Your task to perform on an android device: show emergency info Image 0: 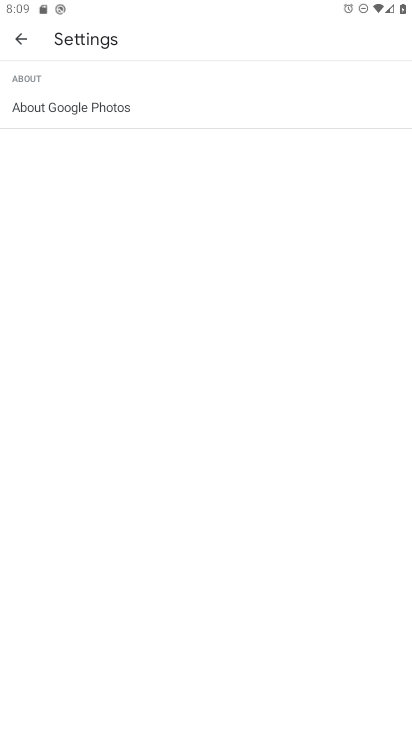
Step 0: press home button
Your task to perform on an android device: show emergency info Image 1: 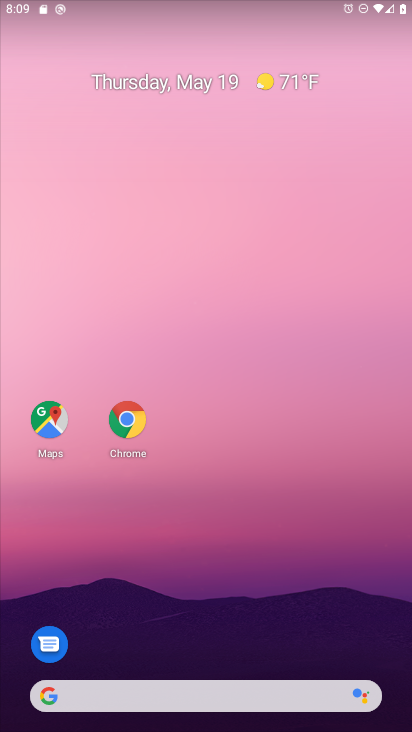
Step 1: drag from (191, 673) to (237, 266)
Your task to perform on an android device: show emergency info Image 2: 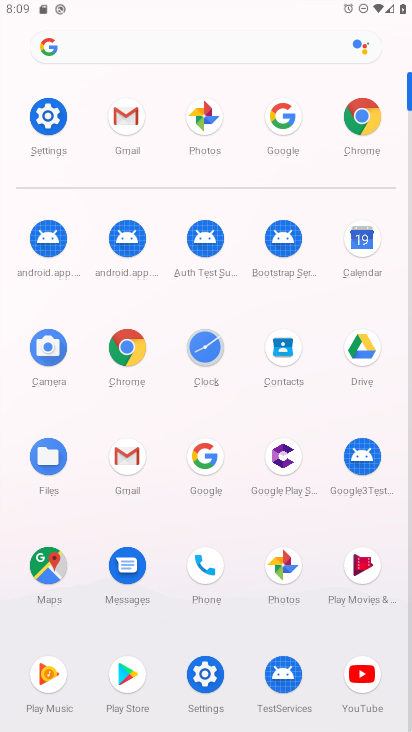
Step 2: click (52, 111)
Your task to perform on an android device: show emergency info Image 3: 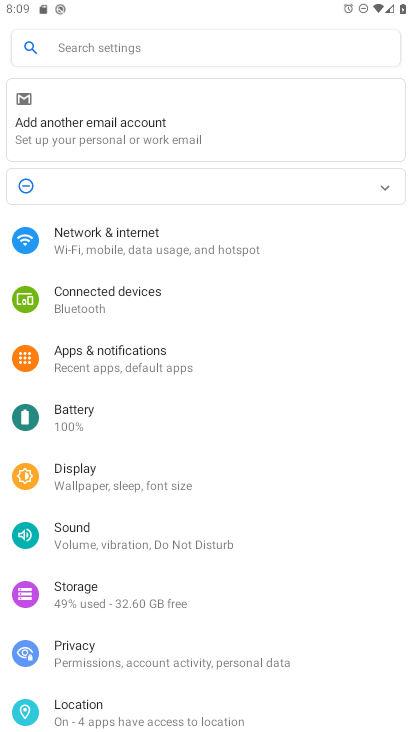
Step 3: drag from (155, 601) to (239, 103)
Your task to perform on an android device: show emergency info Image 4: 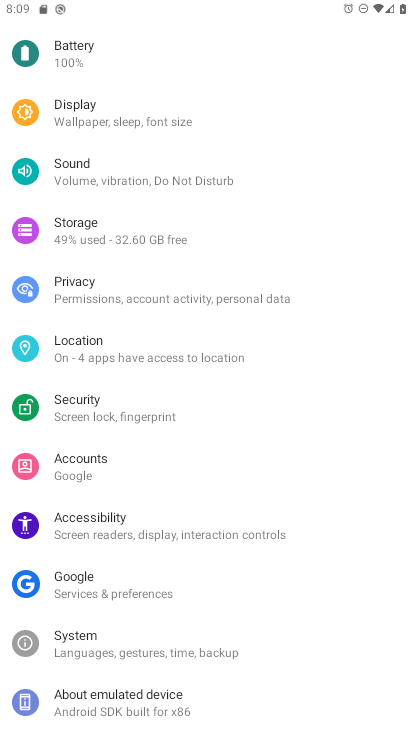
Step 4: click (96, 703)
Your task to perform on an android device: show emergency info Image 5: 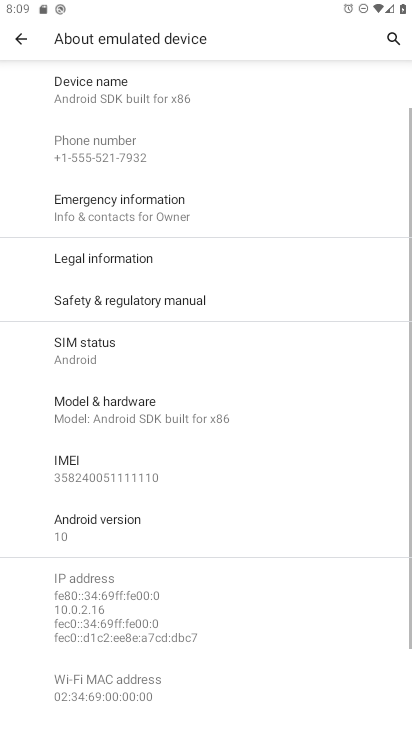
Step 5: drag from (122, 681) to (162, 505)
Your task to perform on an android device: show emergency info Image 6: 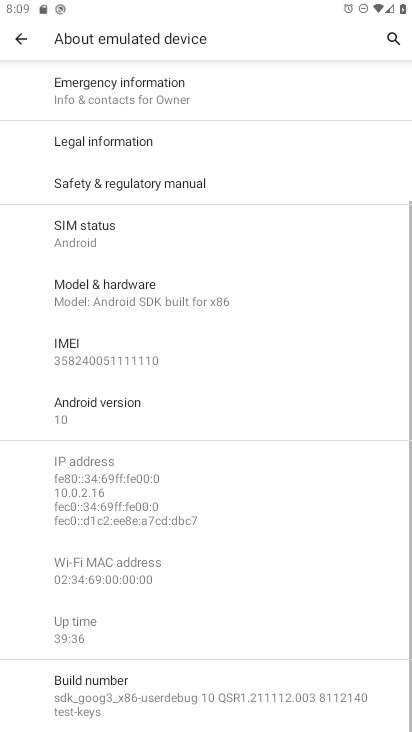
Step 6: click (185, 85)
Your task to perform on an android device: show emergency info Image 7: 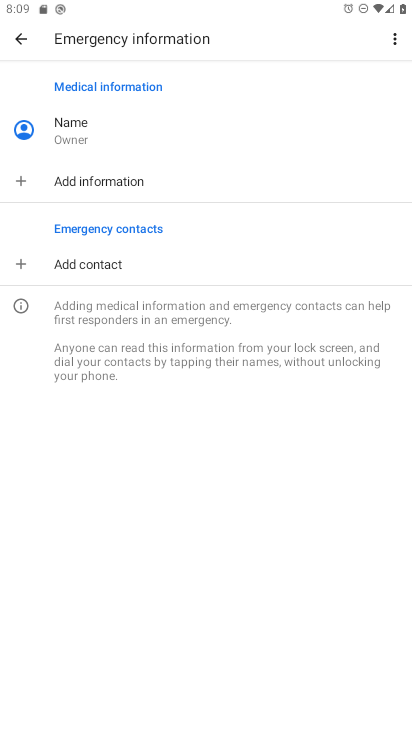
Step 7: task complete